Your task to perform on an android device: check battery use Image 0: 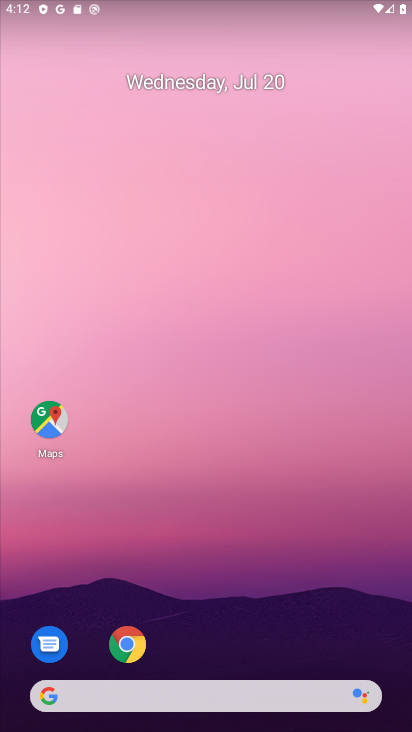
Step 0: press home button
Your task to perform on an android device: check battery use Image 1: 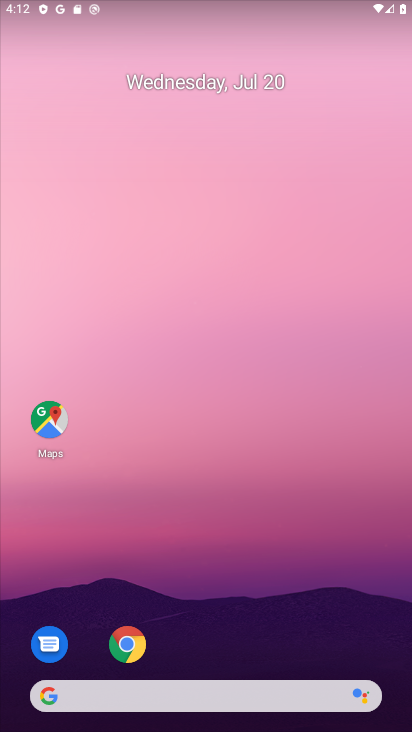
Step 1: drag from (230, 626) to (238, 106)
Your task to perform on an android device: check battery use Image 2: 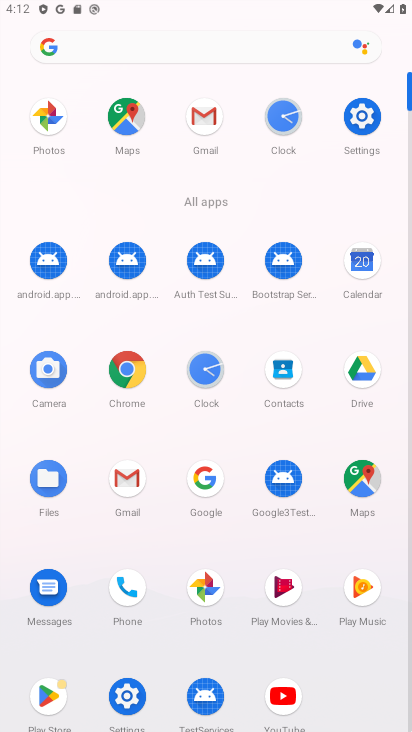
Step 2: click (360, 123)
Your task to perform on an android device: check battery use Image 3: 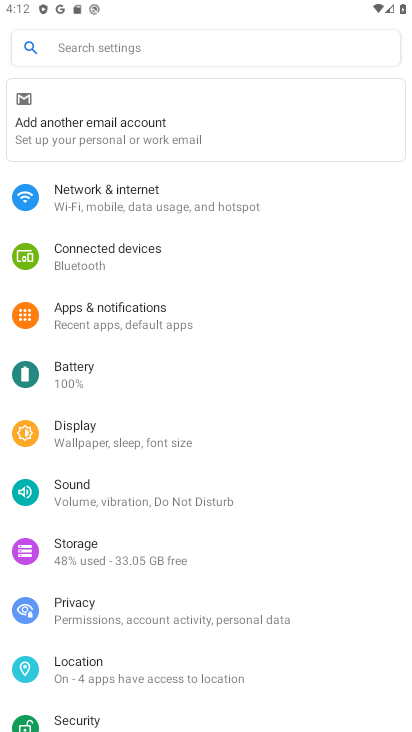
Step 3: click (85, 363)
Your task to perform on an android device: check battery use Image 4: 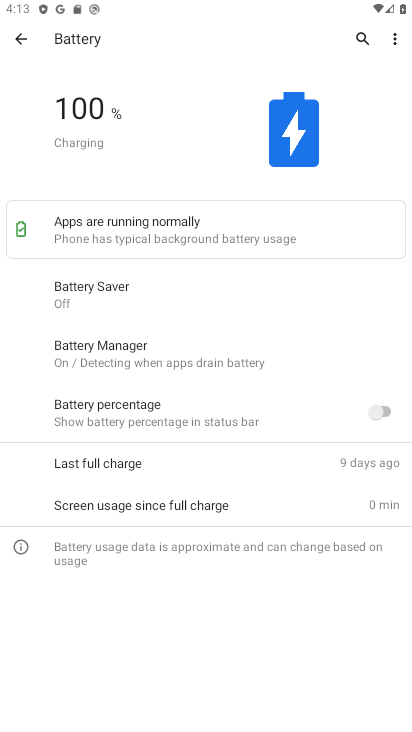
Step 4: task complete